Your task to perform on an android device: Open network settings Image 0: 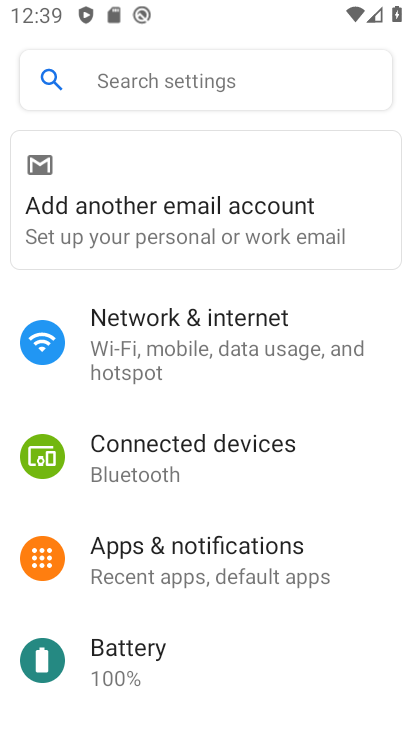
Step 0: click (206, 339)
Your task to perform on an android device: Open network settings Image 1: 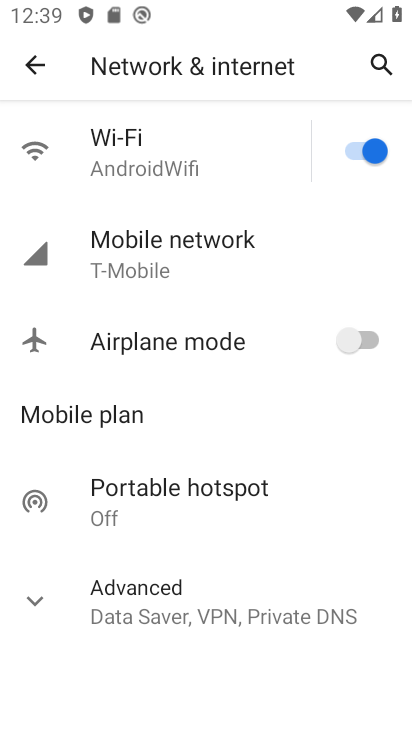
Step 1: task complete